Your task to perform on an android device: Open settings Image 0: 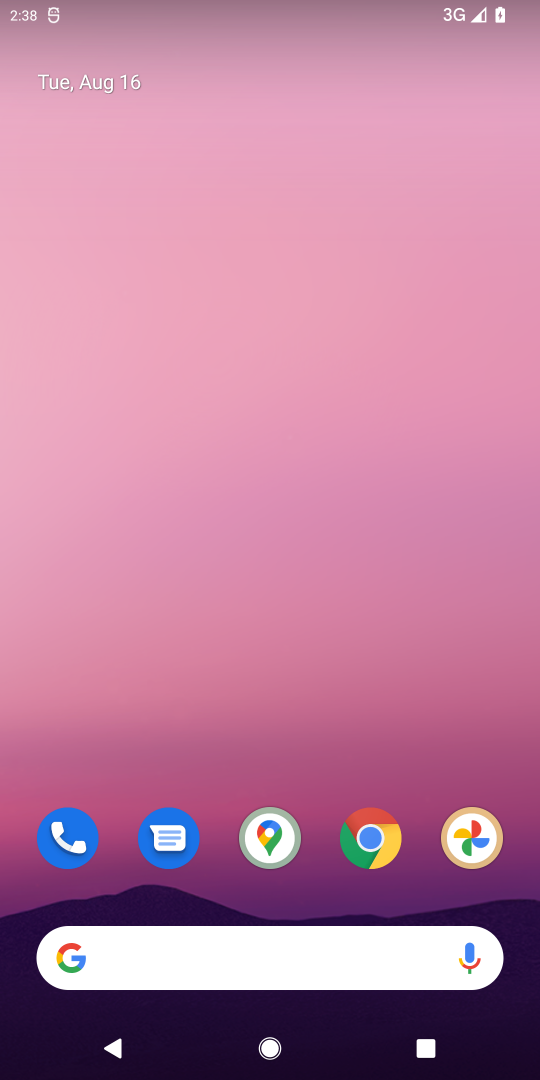
Step 0: press home button
Your task to perform on an android device: Open settings Image 1: 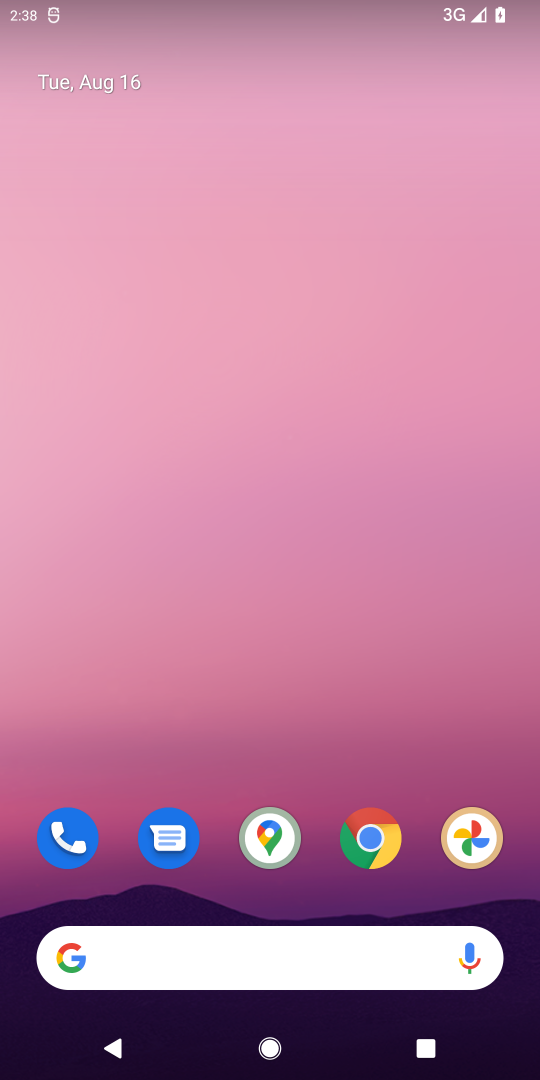
Step 1: drag from (239, 761) to (199, 81)
Your task to perform on an android device: Open settings Image 2: 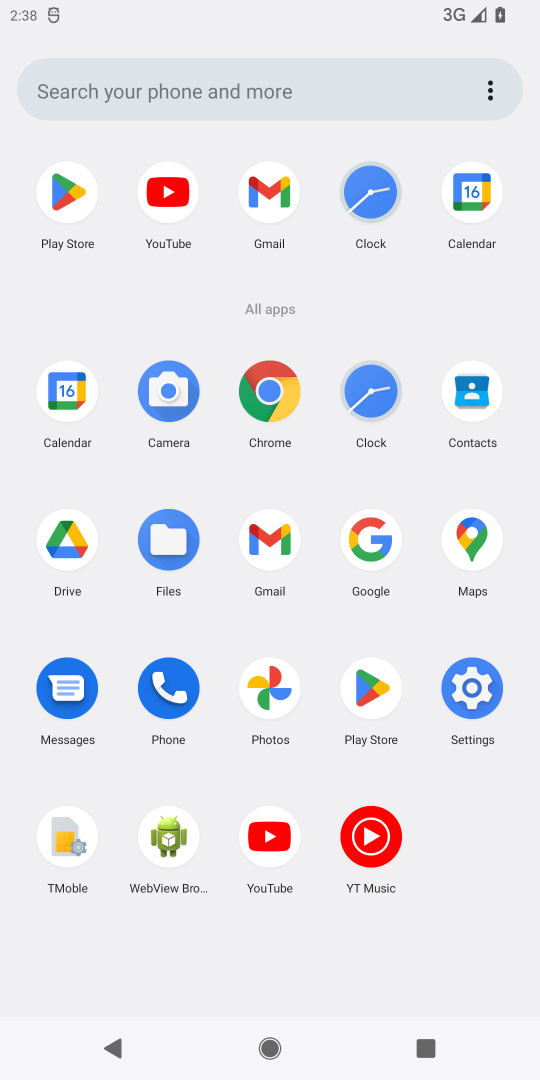
Step 2: click (472, 693)
Your task to perform on an android device: Open settings Image 3: 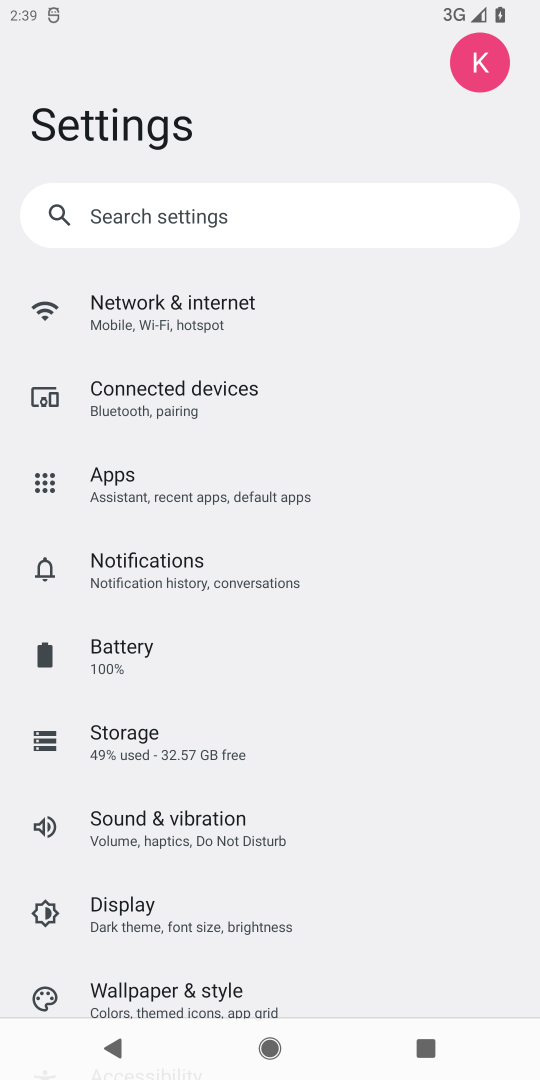
Step 3: task complete